Your task to perform on an android device: Do I have any events this weekend? Image 0: 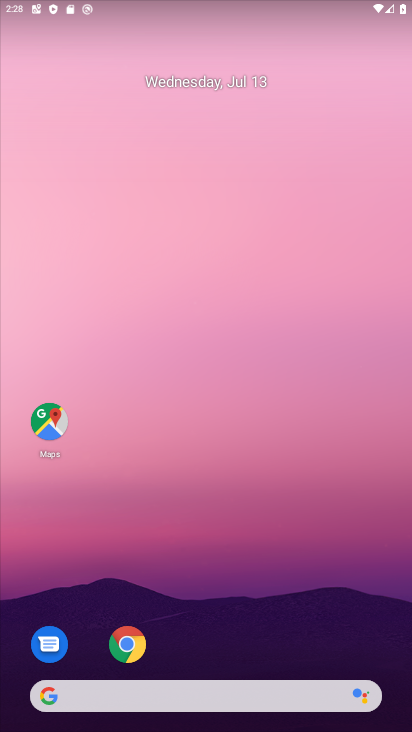
Step 0: drag from (352, 578) to (356, 155)
Your task to perform on an android device: Do I have any events this weekend? Image 1: 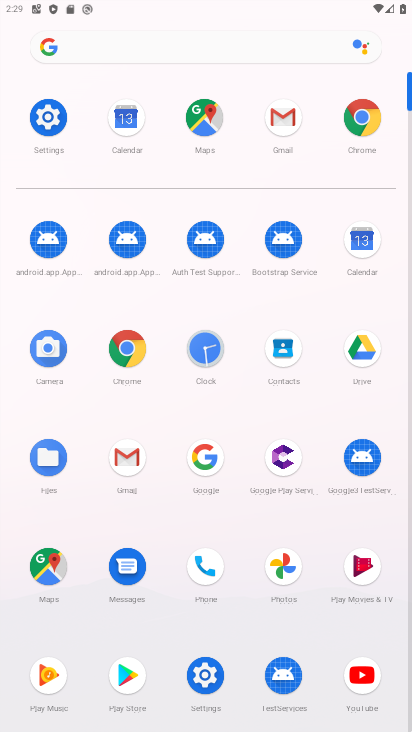
Step 1: click (138, 118)
Your task to perform on an android device: Do I have any events this weekend? Image 2: 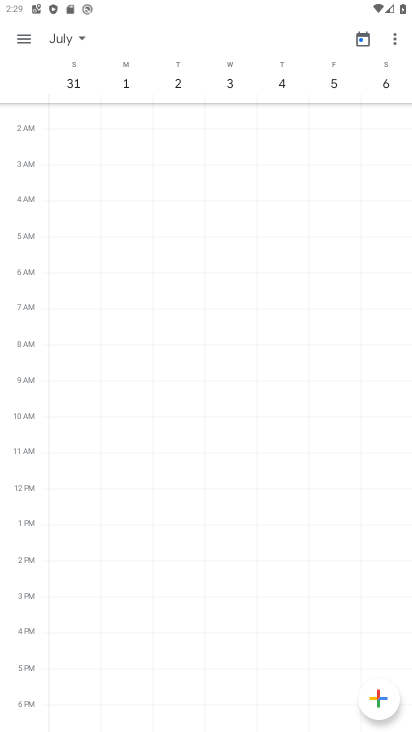
Step 2: drag from (393, 88) to (202, 81)
Your task to perform on an android device: Do I have any events this weekend? Image 3: 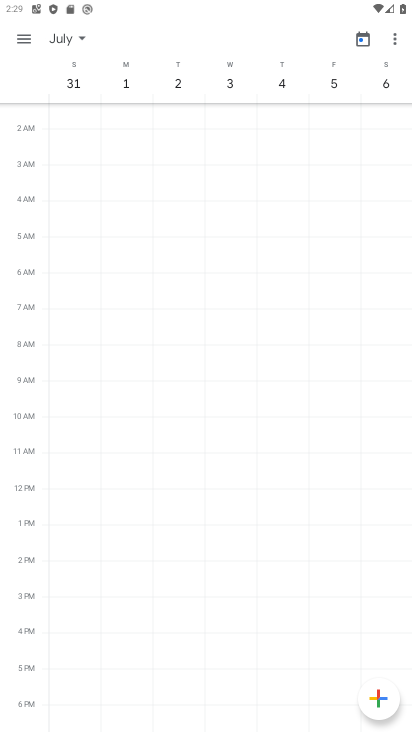
Step 3: drag from (139, 77) to (408, 93)
Your task to perform on an android device: Do I have any events this weekend? Image 4: 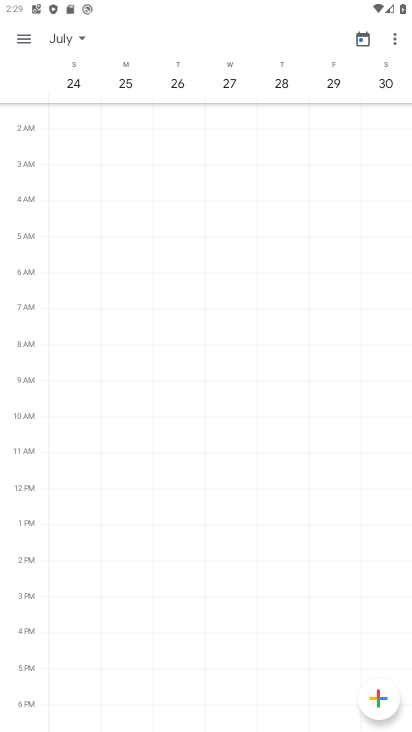
Step 4: drag from (127, 75) to (389, 103)
Your task to perform on an android device: Do I have any events this weekend? Image 5: 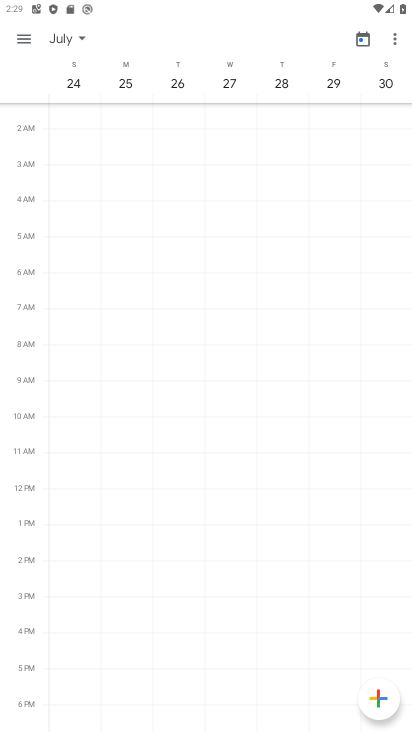
Step 5: drag from (90, 70) to (367, 78)
Your task to perform on an android device: Do I have any events this weekend? Image 6: 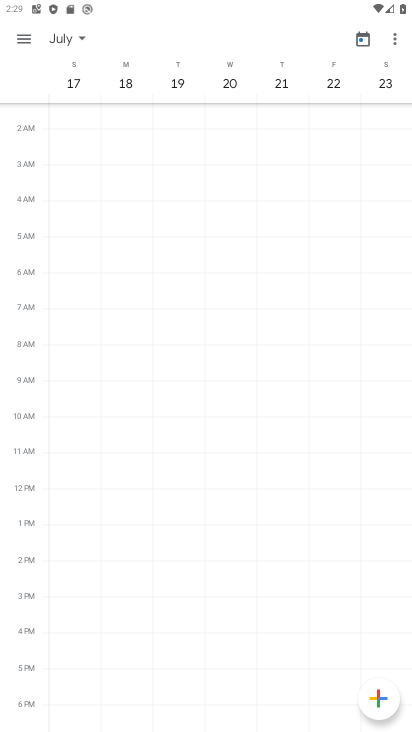
Step 6: drag from (80, 83) to (388, 88)
Your task to perform on an android device: Do I have any events this weekend? Image 7: 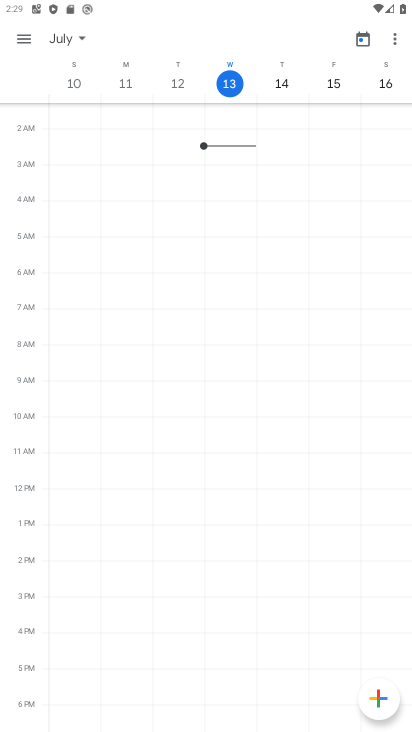
Step 7: click (383, 81)
Your task to perform on an android device: Do I have any events this weekend? Image 8: 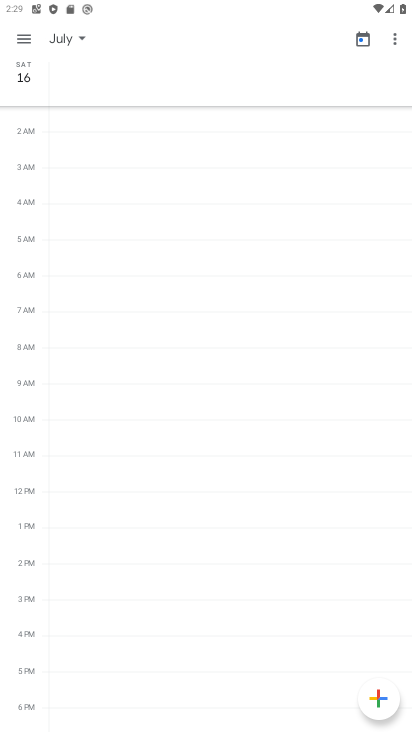
Step 8: click (24, 38)
Your task to perform on an android device: Do I have any events this weekend? Image 9: 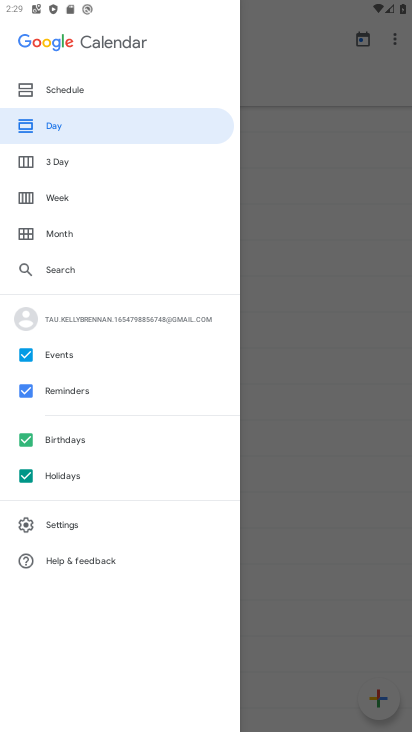
Step 9: click (66, 165)
Your task to perform on an android device: Do I have any events this weekend? Image 10: 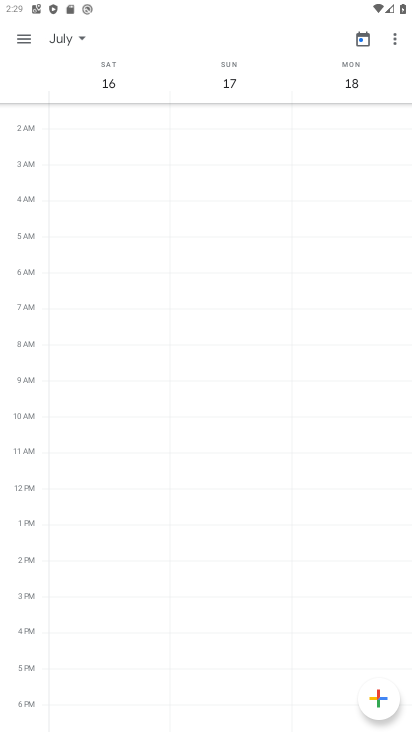
Step 10: task complete